Your task to perform on an android device: Go to internet settings Image 0: 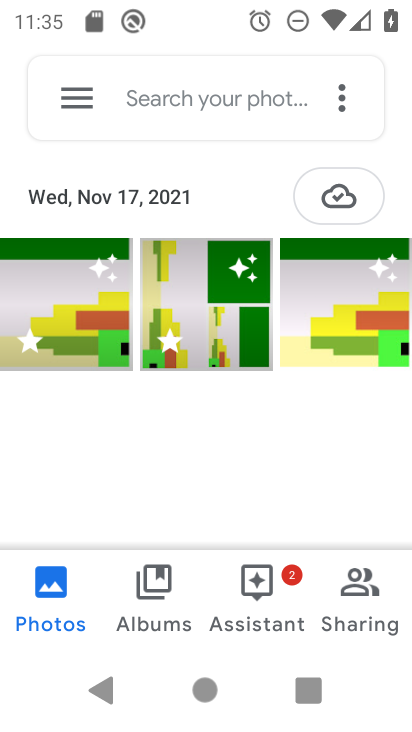
Step 0: press home button
Your task to perform on an android device: Go to internet settings Image 1: 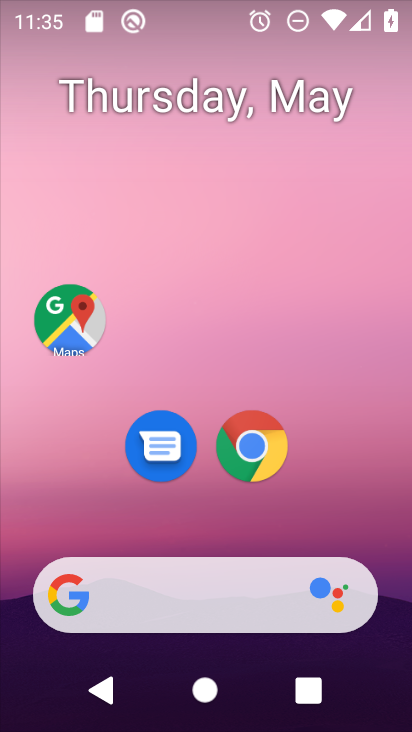
Step 1: drag from (260, 635) to (271, 215)
Your task to perform on an android device: Go to internet settings Image 2: 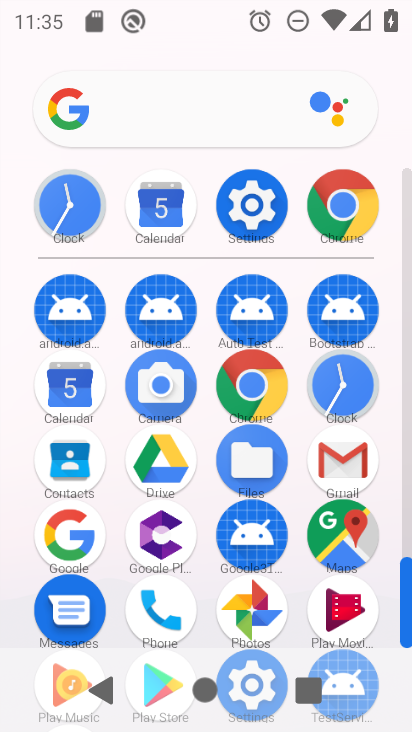
Step 2: click (237, 184)
Your task to perform on an android device: Go to internet settings Image 3: 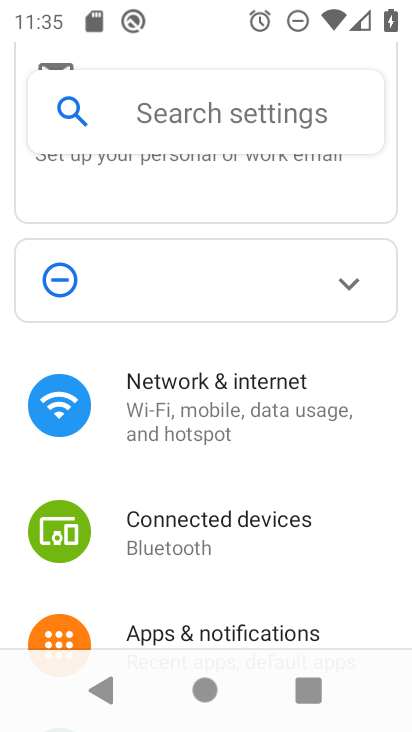
Step 3: click (210, 382)
Your task to perform on an android device: Go to internet settings Image 4: 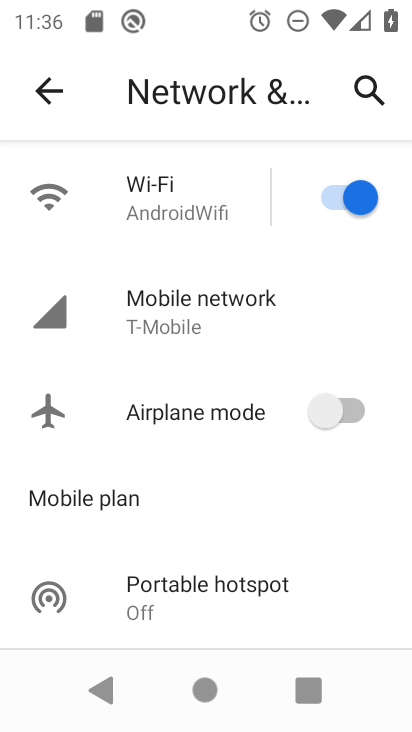
Step 4: click (208, 325)
Your task to perform on an android device: Go to internet settings Image 5: 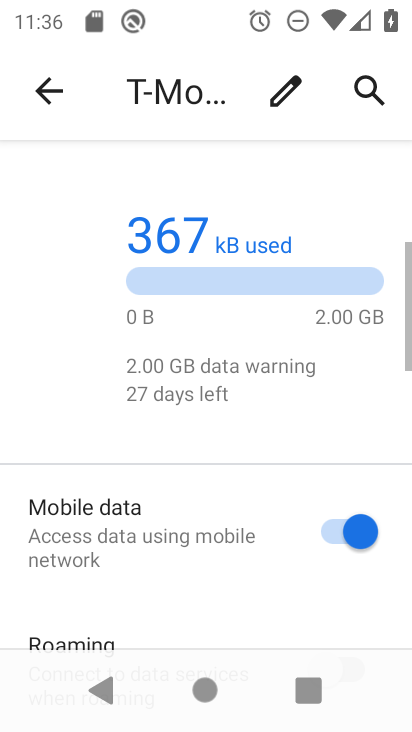
Step 5: task complete